Your task to perform on an android device: search for accent chairs on article.com Image 0: 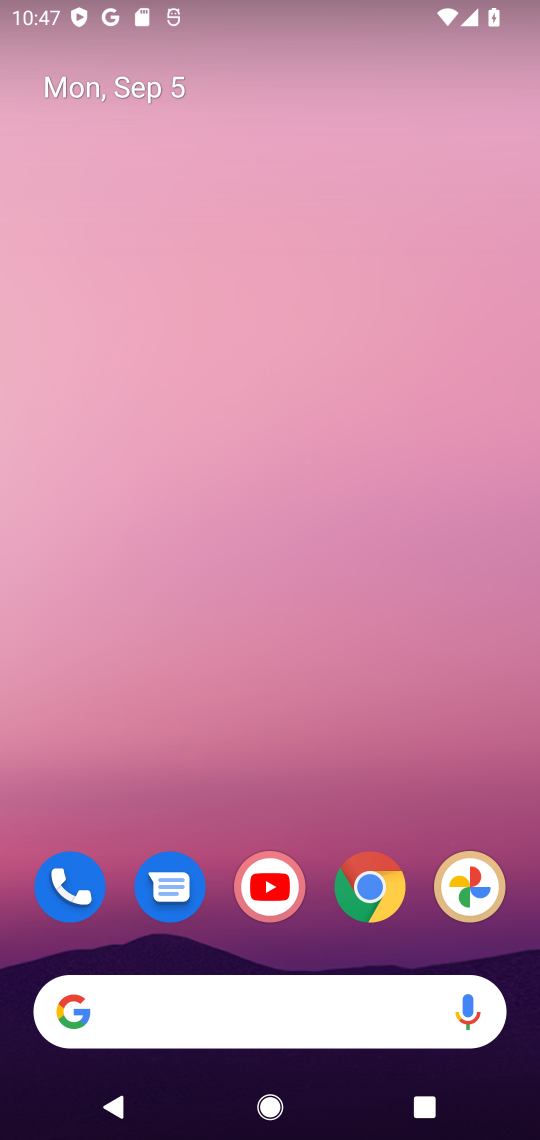
Step 0: click (373, 893)
Your task to perform on an android device: search for accent chairs on article.com Image 1: 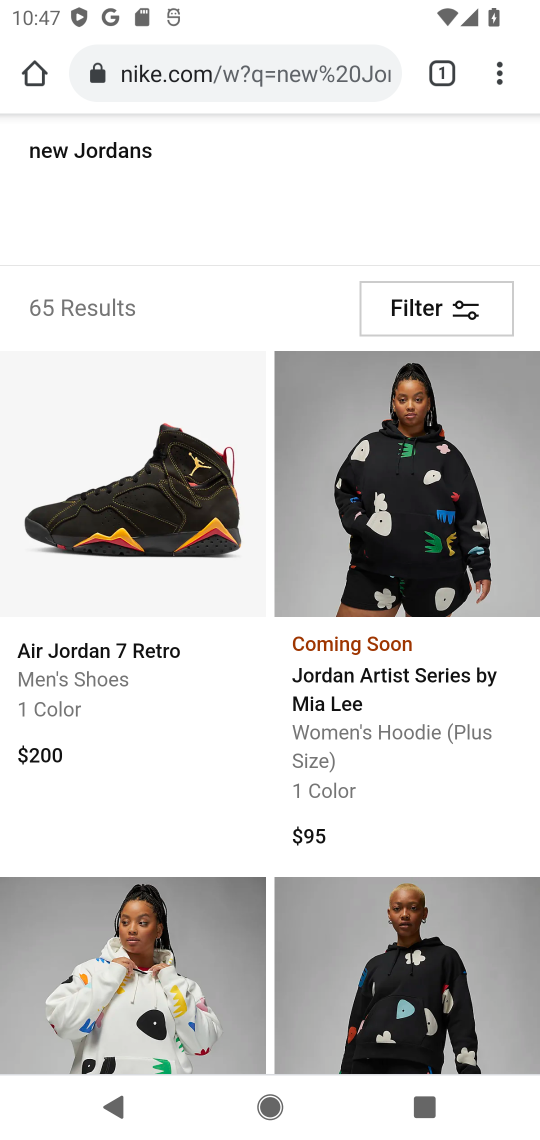
Step 1: click (259, 63)
Your task to perform on an android device: search for accent chairs on article.com Image 2: 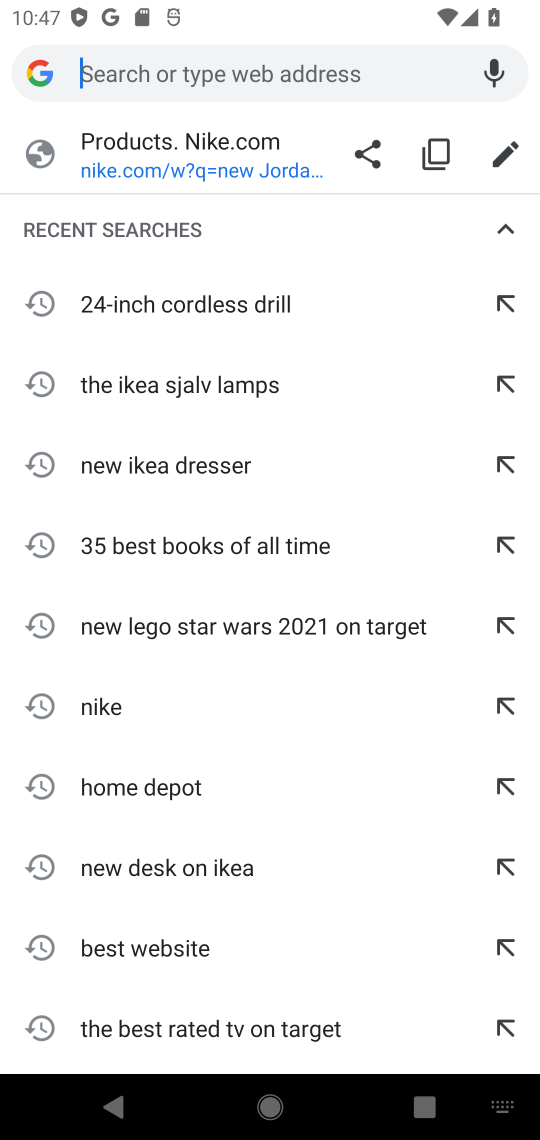
Step 2: type "article.com"
Your task to perform on an android device: search for accent chairs on article.com Image 3: 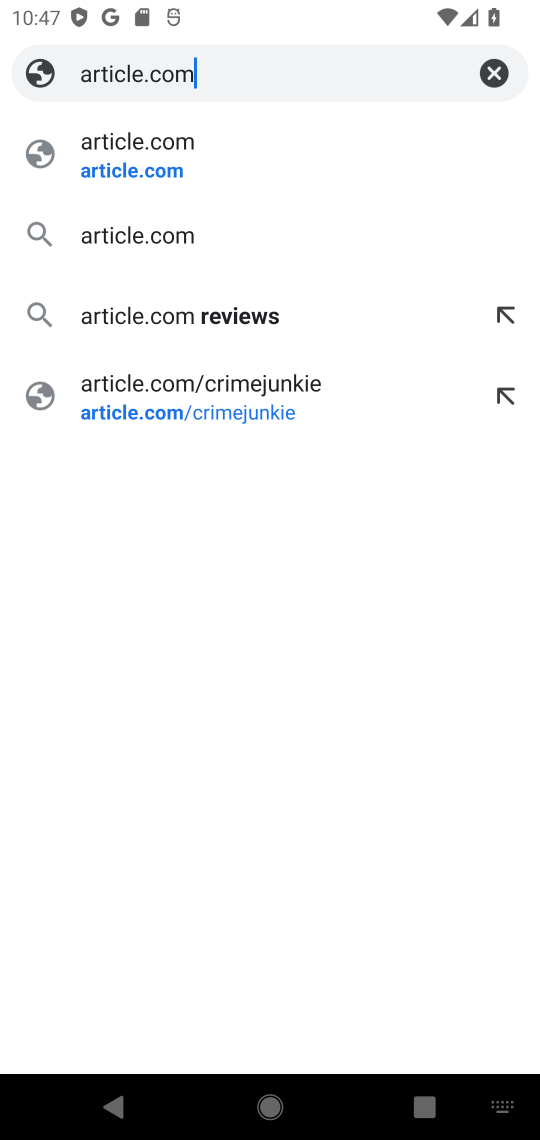
Step 3: press enter
Your task to perform on an android device: search for accent chairs on article.com Image 4: 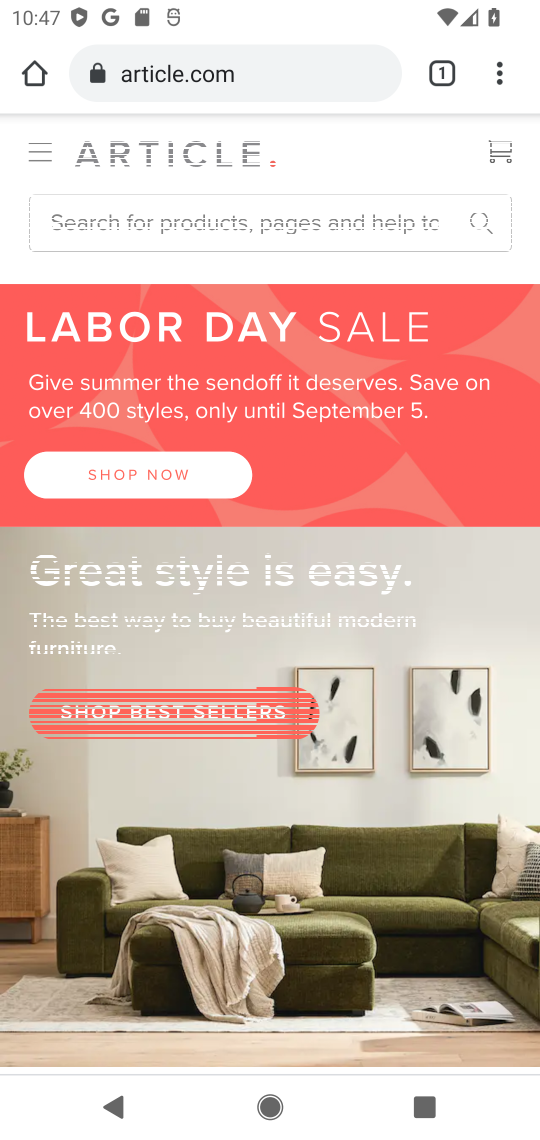
Step 4: click (226, 215)
Your task to perform on an android device: search for accent chairs on article.com Image 5: 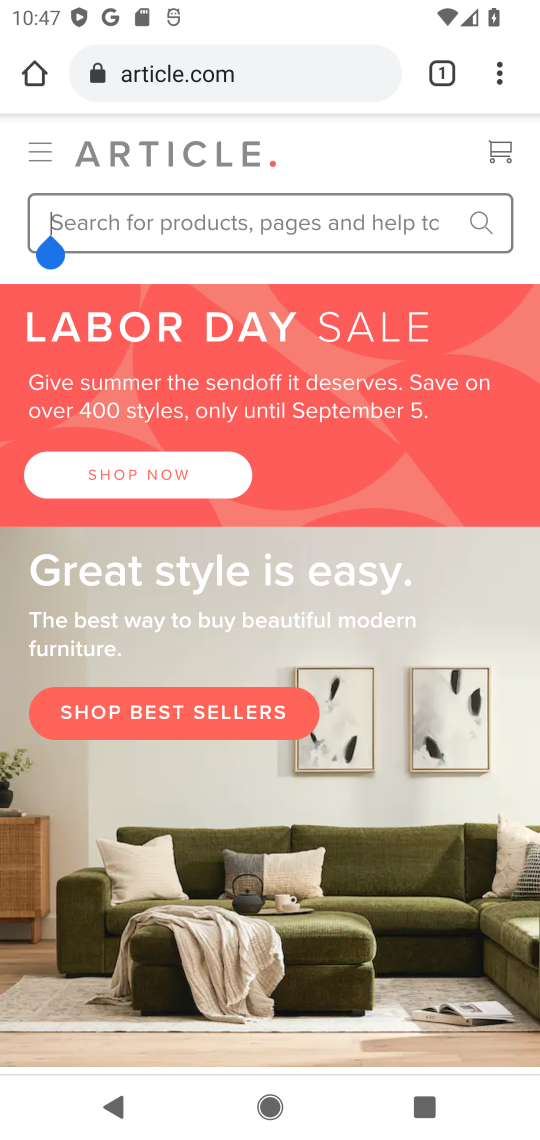
Step 5: click (231, 226)
Your task to perform on an android device: search for accent chairs on article.com Image 6: 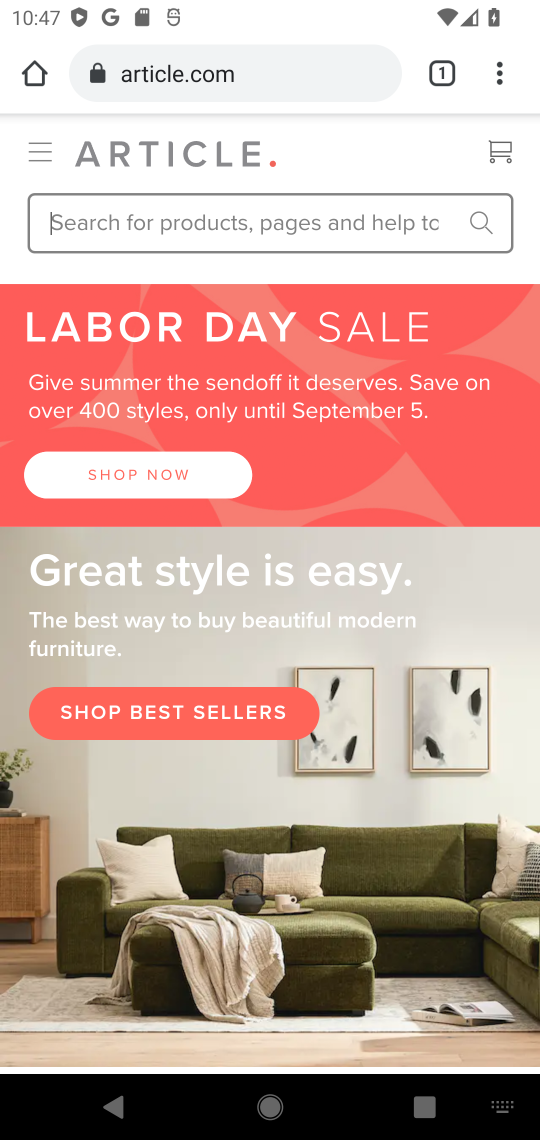
Step 6: type "accent chairs"
Your task to perform on an android device: search for accent chairs on article.com Image 7: 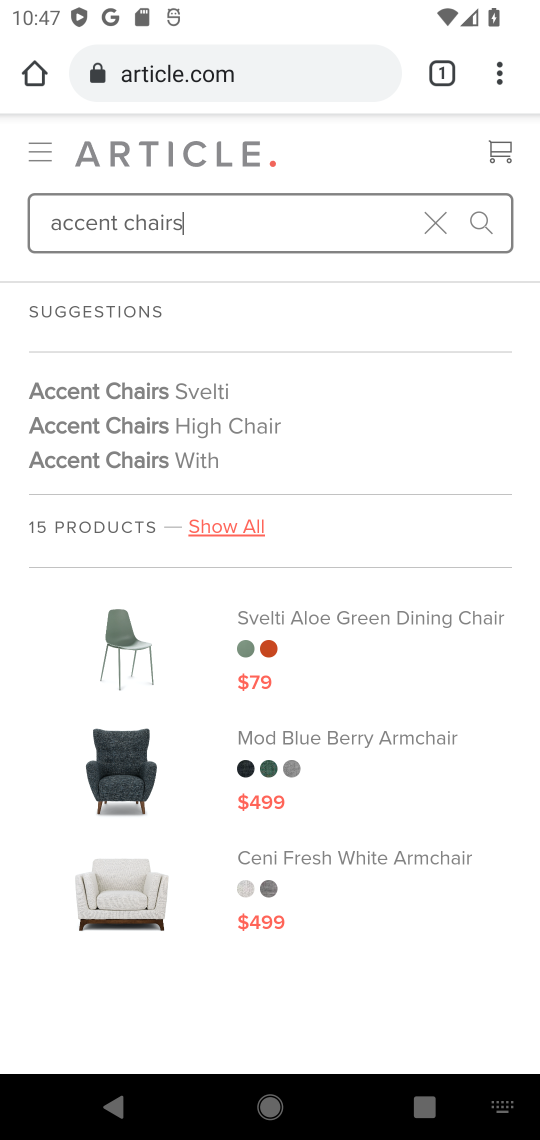
Step 7: press enter
Your task to perform on an android device: search for accent chairs on article.com Image 8: 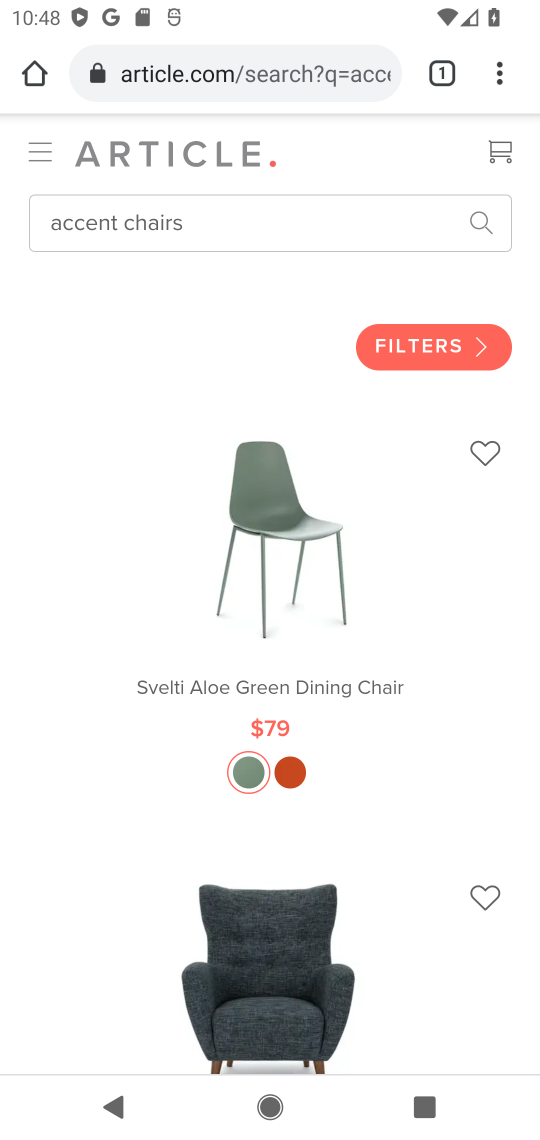
Step 8: task complete